Your task to perform on an android device: see sites visited before in the chrome app Image 0: 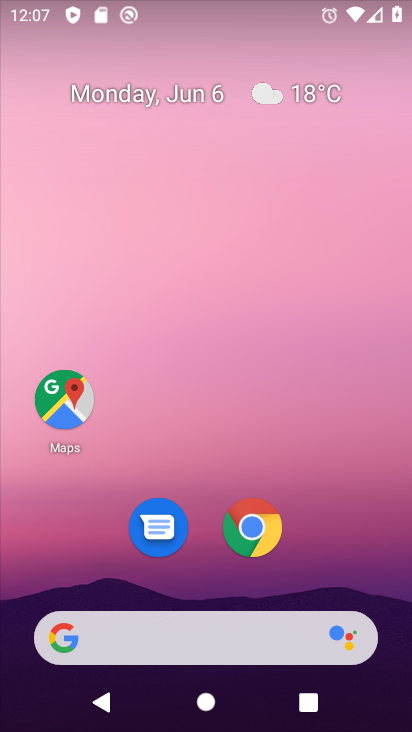
Step 0: click (253, 524)
Your task to perform on an android device: see sites visited before in the chrome app Image 1: 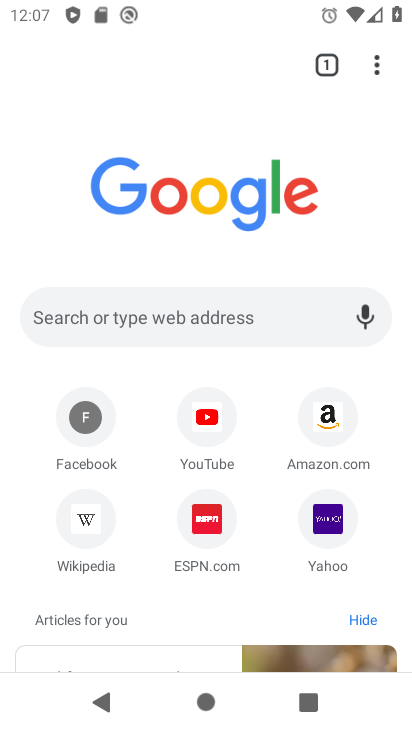
Step 1: click (381, 62)
Your task to perform on an android device: see sites visited before in the chrome app Image 2: 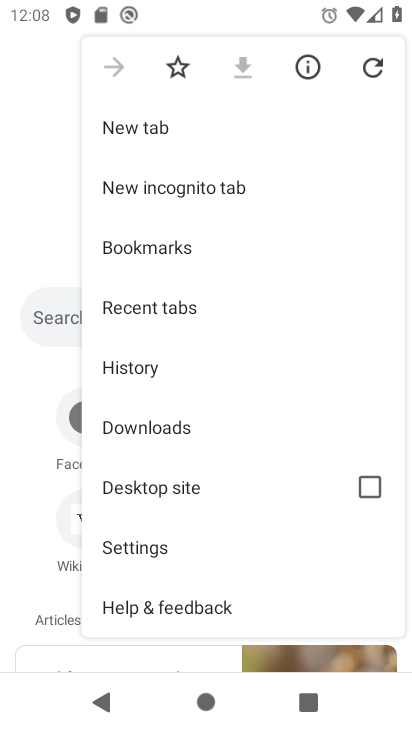
Step 2: click (163, 367)
Your task to perform on an android device: see sites visited before in the chrome app Image 3: 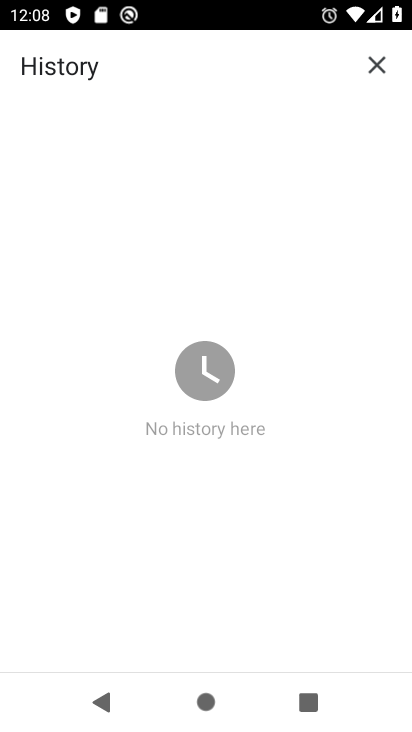
Step 3: task complete